Your task to perform on an android device: Go to privacy settings Image 0: 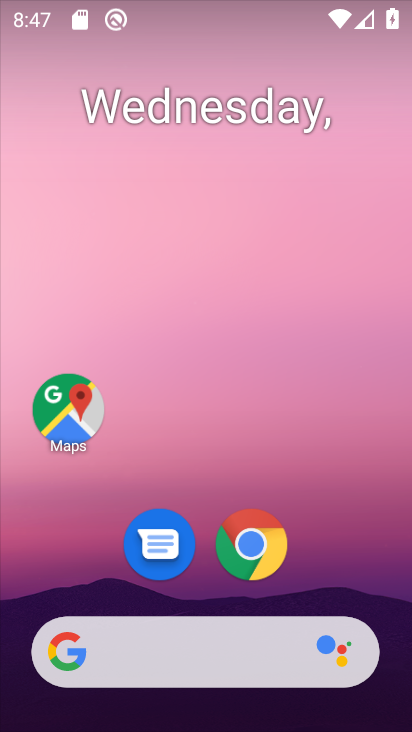
Step 0: drag from (160, 633) to (313, 72)
Your task to perform on an android device: Go to privacy settings Image 1: 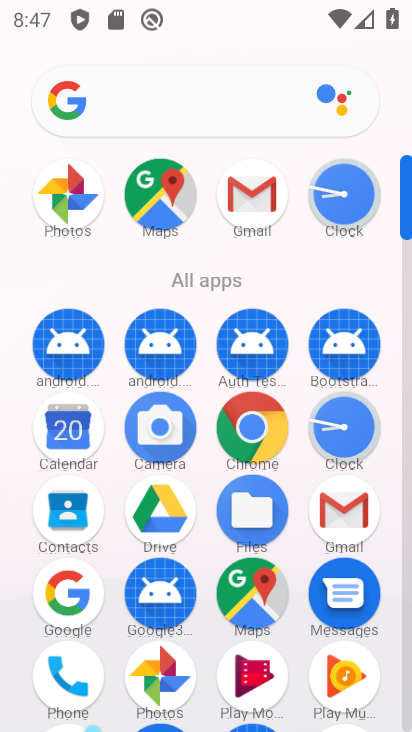
Step 1: drag from (103, 566) to (285, 155)
Your task to perform on an android device: Go to privacy settings Image 2: 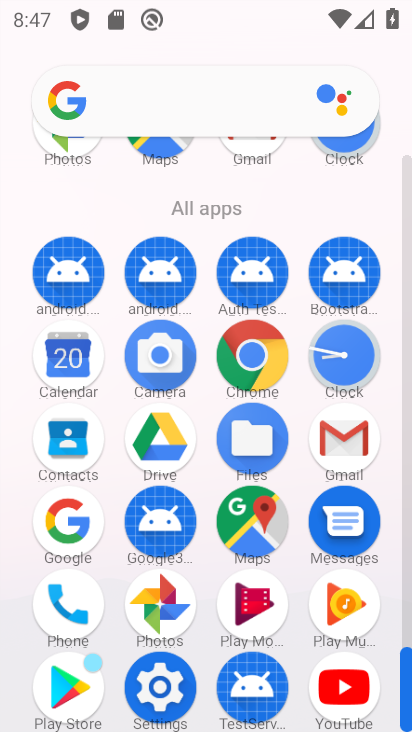
Step 2: click (155, 678)
Your task to perform on an android device: Go to privacy settings Image 3: 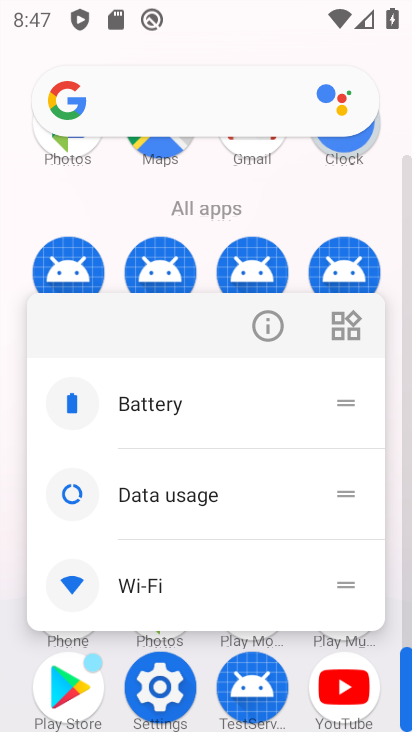
Step 3: click (153, 680)
Your task to perform on an android device: Go to privacy settings Image 4: 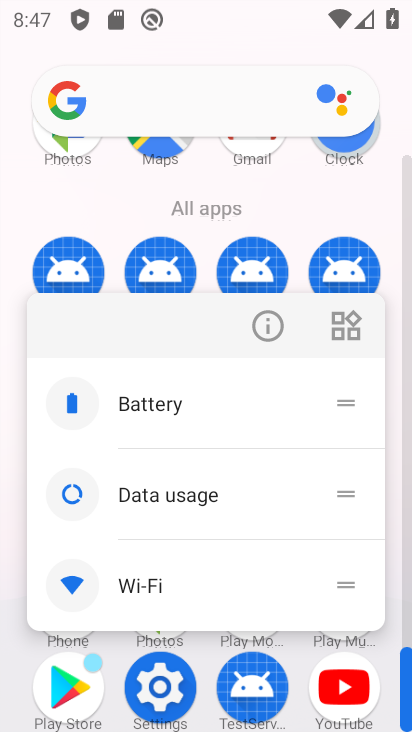
Step 4: click (158, 689)
Your task to perform on an android device: Go to privacy settings Image 5: 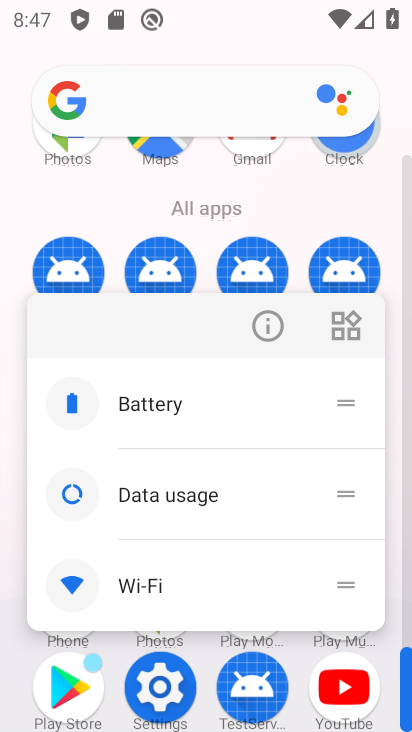
Step 5: click (166, 697)
Your task to perform on an android device: Go to privacy settings Image 6: 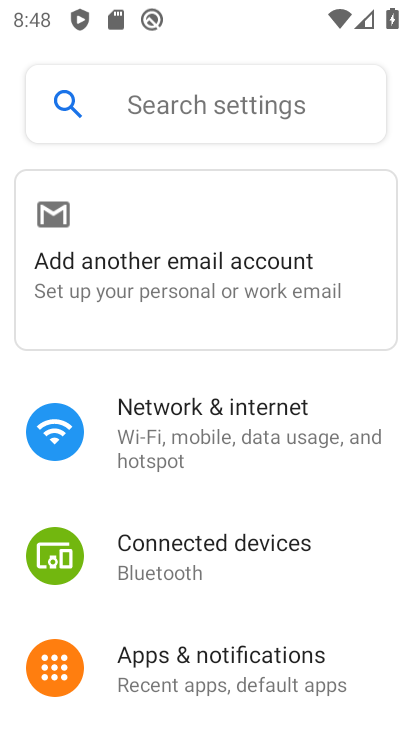
Step 6: drag from (212, 623) to (335, 129)
Your task to perform on an android device: Go to privacy settings Image 7: 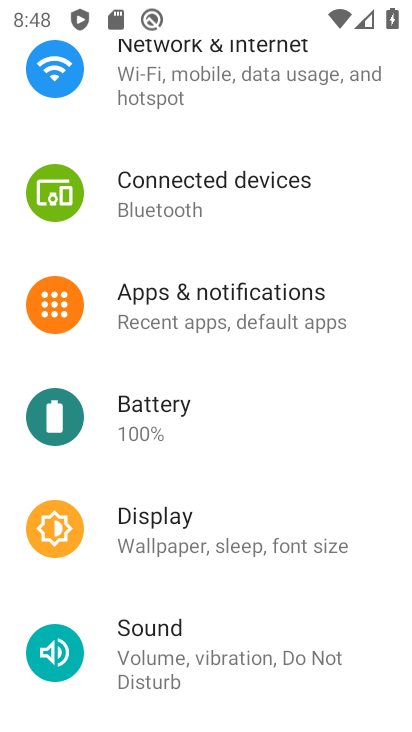
Step 7: drag from (247, 501) to (334, 84)
Your task to perform on an android device: Go to privacy settings Image 8: 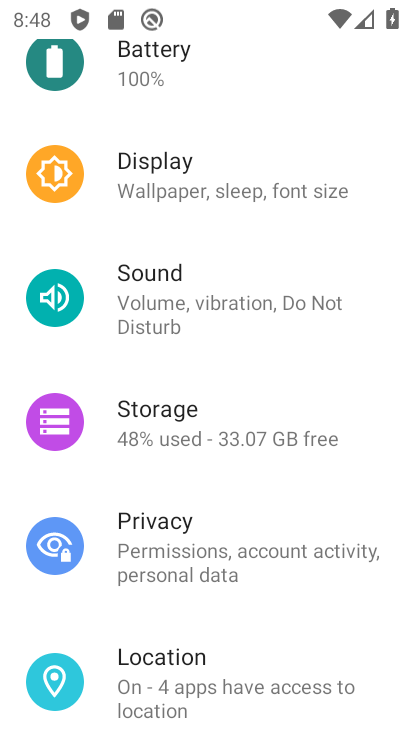
Step 8: click (176, 531)
Your task to perform on an android device: Go to privacy settings Image 9: 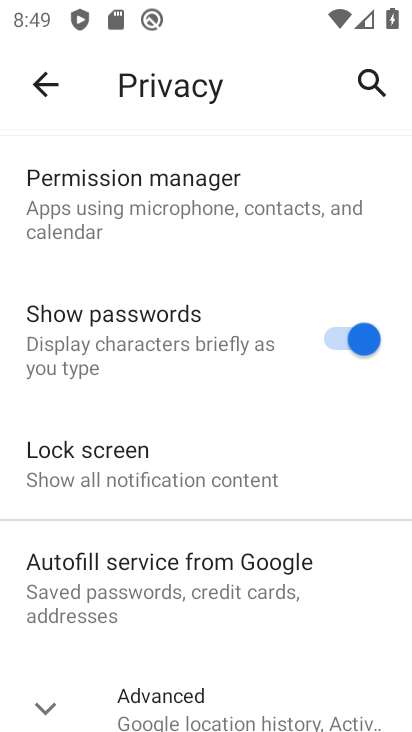
Step 9: task complete